Your task to perform on an android device: move a message to another label in the gmail app Image 0: 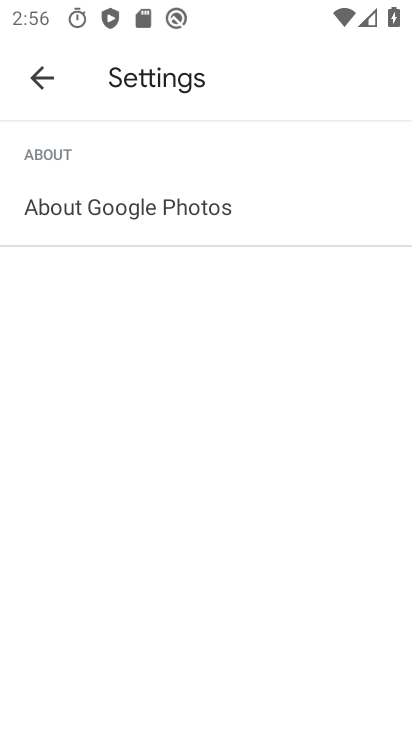
Step 0: press home button
Your task to perform on an android device: move a message to another label in the gmail app Image 1: 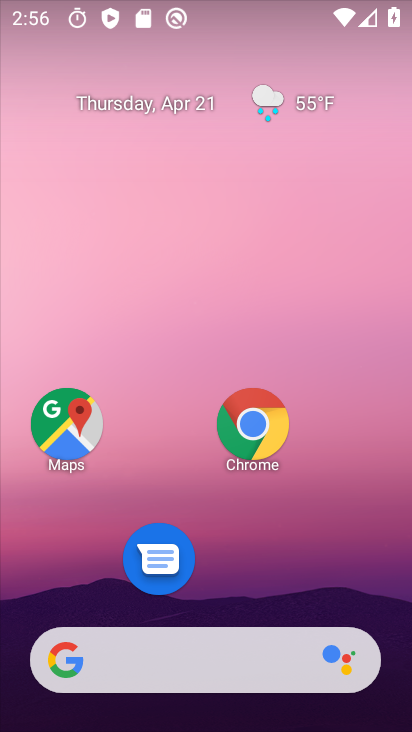
Step 1: drag from (255, 446) to (214, 59)
Your task to perform on an android device: move a message to another label in the gmail app Image 2: 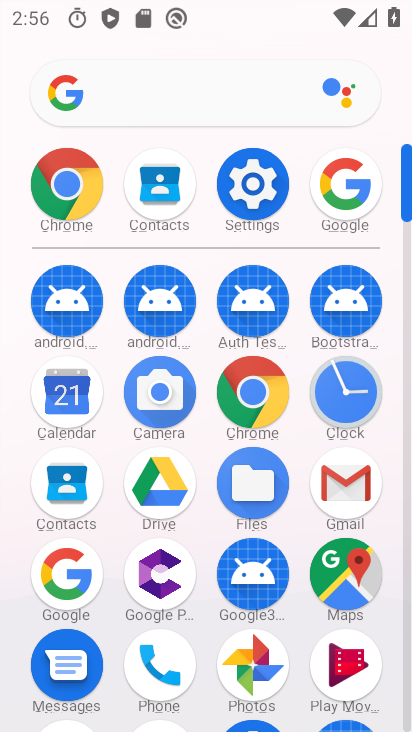
Step 2: click (340, 488)
Your task to perform on an android device: move a message to another label in the gmail app Image 3: 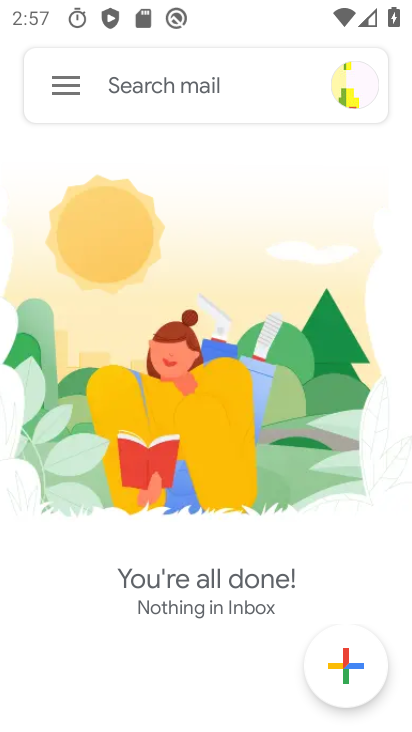
Step 3: task complete